Your task to perform on an android device: Go to settings Image 0: 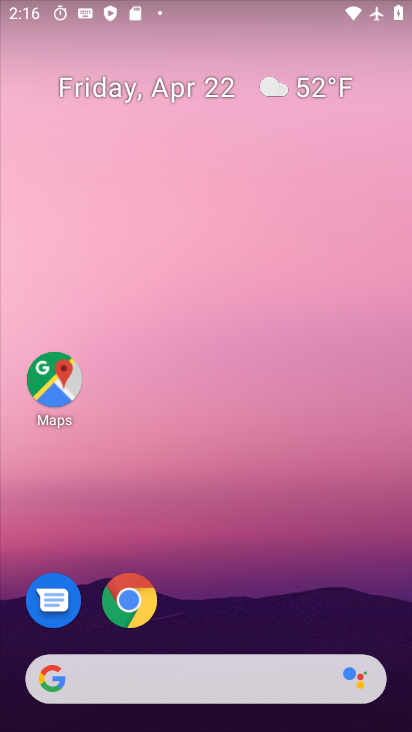
Step 0: drag from (213, 437) to (204, 126)
Your task to perform on an android device: Go to settings Image 1: 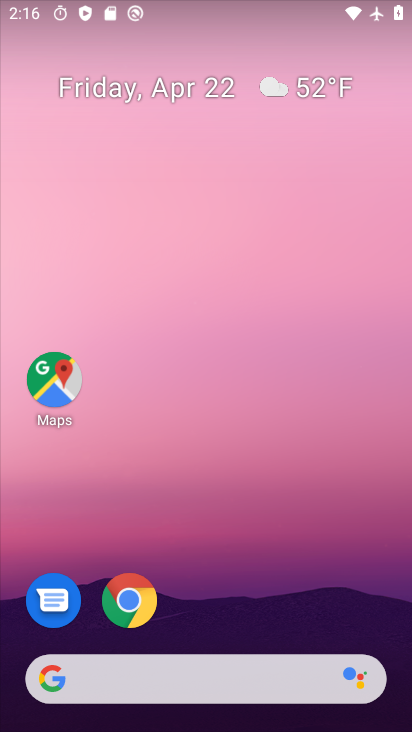
Step 1: drag from (217, 722) to (211, 100)
Your task to perform on an android device: Go to settings Image 2: 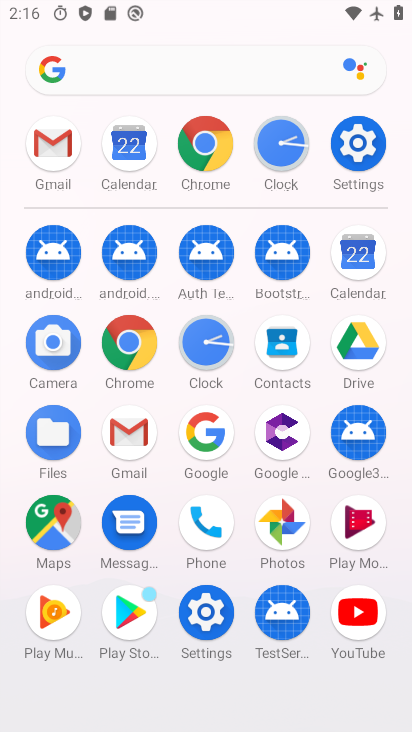
Step 2: click (349, 143)
Your task to perform on an android device: Go to settings Image 3: 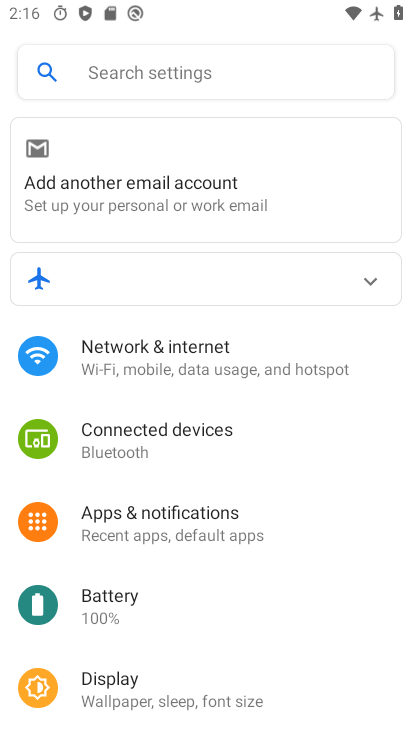
Step 3: task complete